Your task to perform on an android device: Open Youtube and go to the subscriptions tab Image 0: 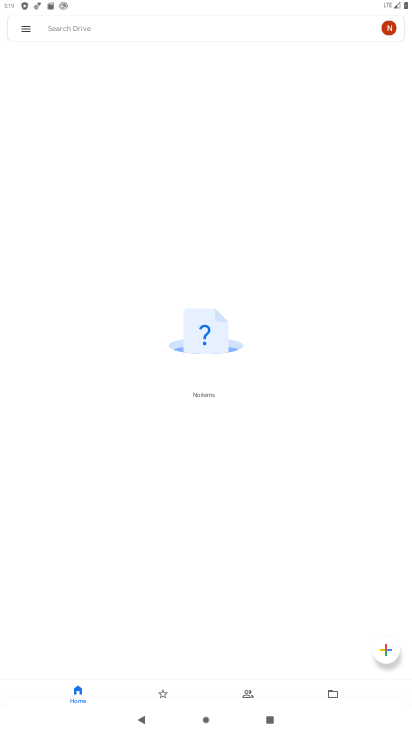
Step 0: press home button
Your task to perform on an android device: Open Youtube and go to the subscriptions tab Image 1: 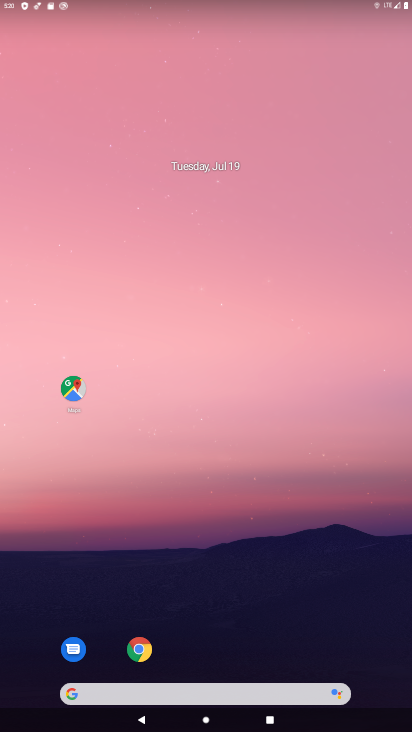
Step 1: drag from (263, 536) to (194, 36)
Your task to perform on an android device: Open Youtube and go to the subscriptions tab Image 2: 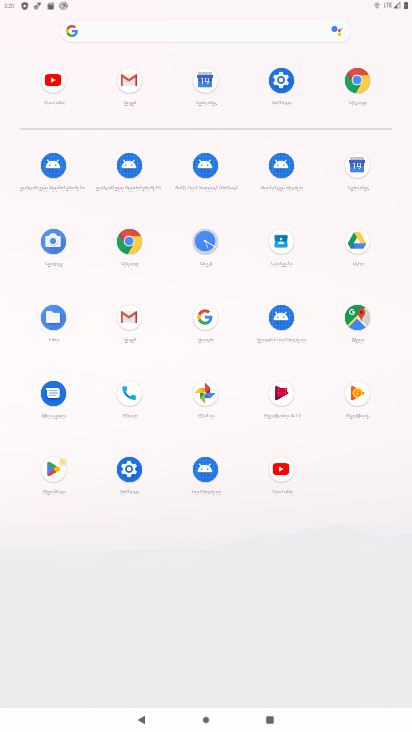
Step 2: click (278, 465)
Your task to perform on an android device: Open Youtube and go to the subscriptions tab Image 3: 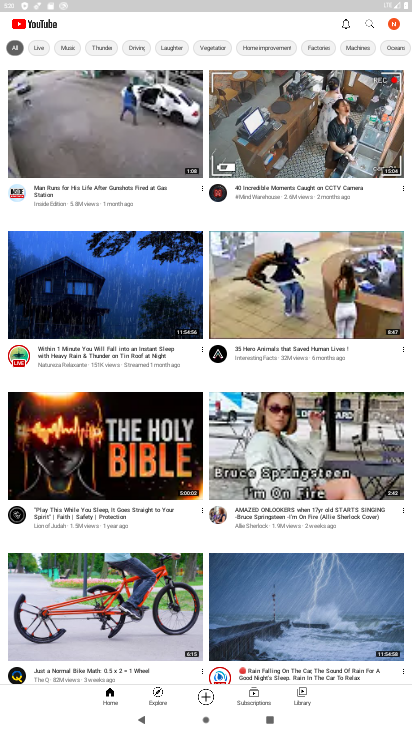
Step 3: click (259, 694)
Your task to perform on an android device: Open Youtube and go to the subscriptions tab Image 4: 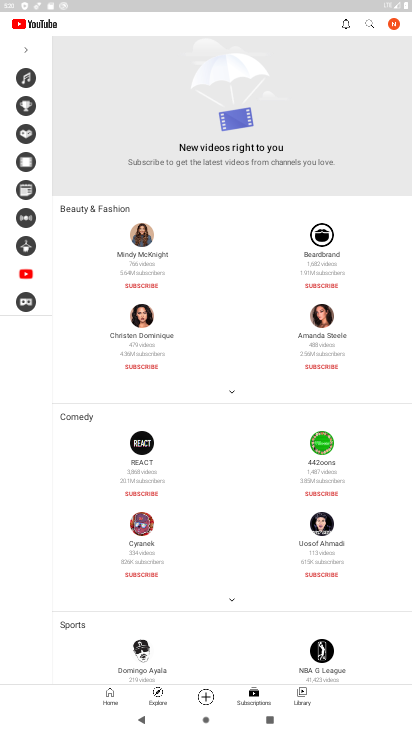
Step 4: task complete